Your task to perform on an android device: Open Maps and search for coffee Image 0: 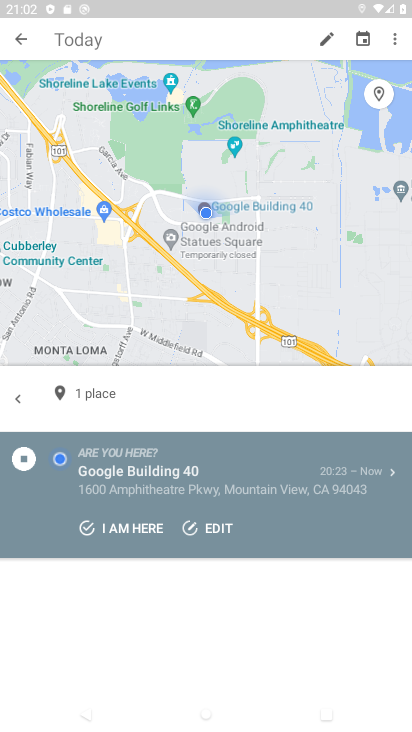
Step 0: press back button
Your task to perform on an android device: Open Maps and search for coffee Image 1: 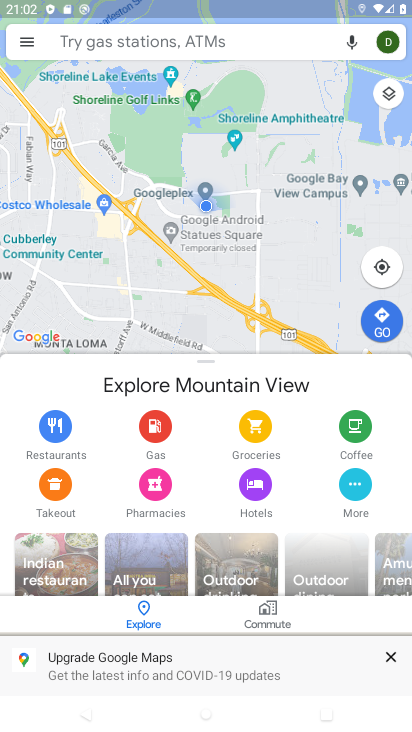
Step 1: press back button
Your task to perform on an android device: Open Maps and search for coffee Image 2: 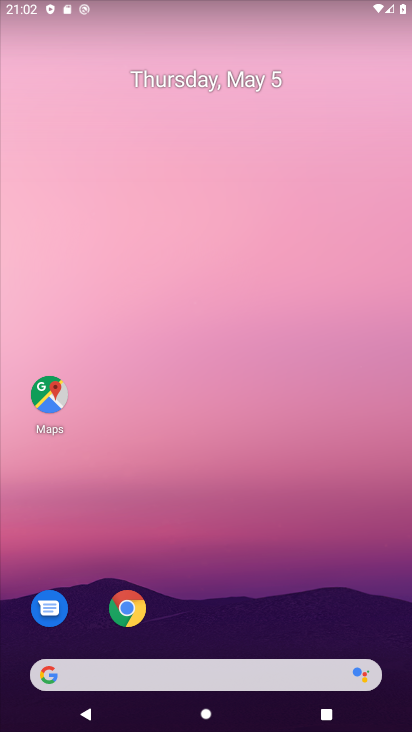
Step 2: drag from (295, 669) to (276, 58)
Your task to perform on an android device: Open Maps and search for coffee Image 3: 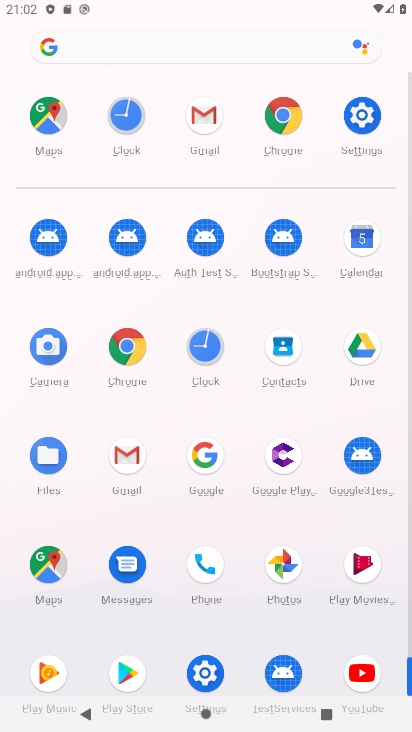
Step 3: click (48, 559)
Your task to perform on an android device: Open Maps and search for coffee Image 4: 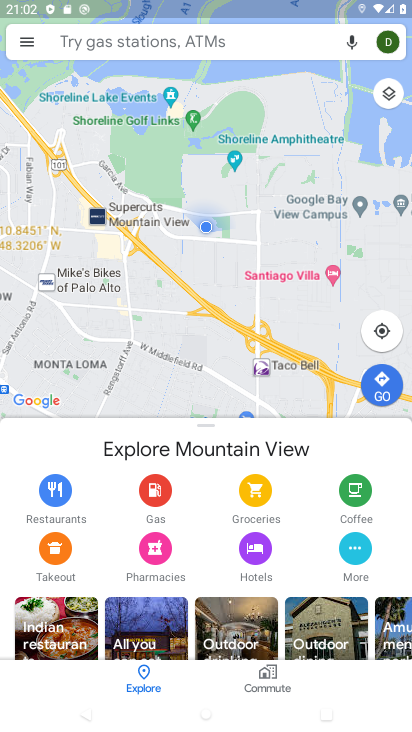
Step 4: click (288, 37)
Your task to perform on an android device: Open Maps and search for coffee Image 5: 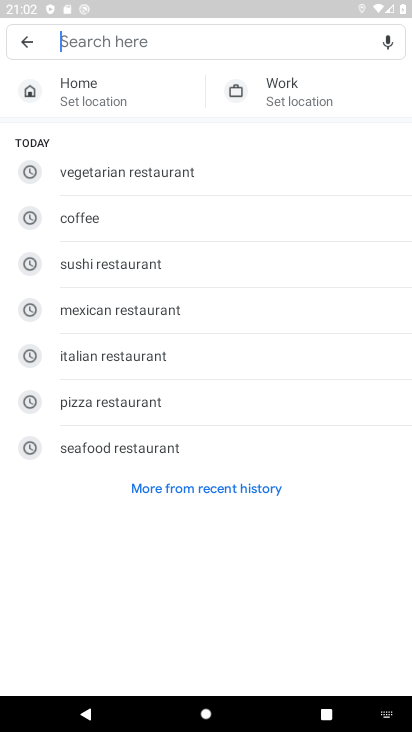
Step 5: click (331, 211)
Your task to perform on an android device: Open Maps and search for coffee Image 6: 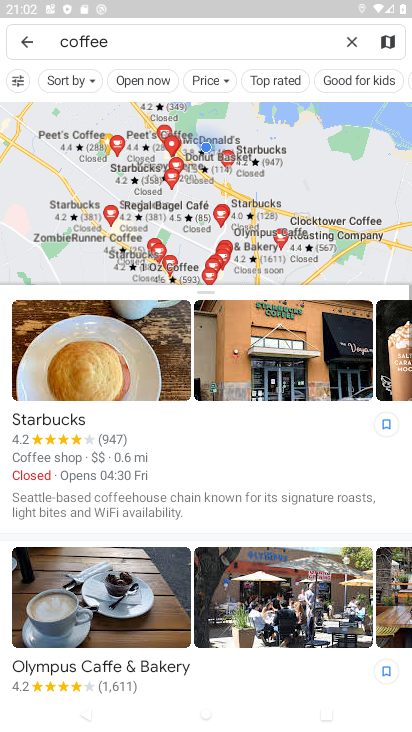
Step 6: task complete